Your task to perform on an android device: turn smart compose on in the gmail app Image 0: 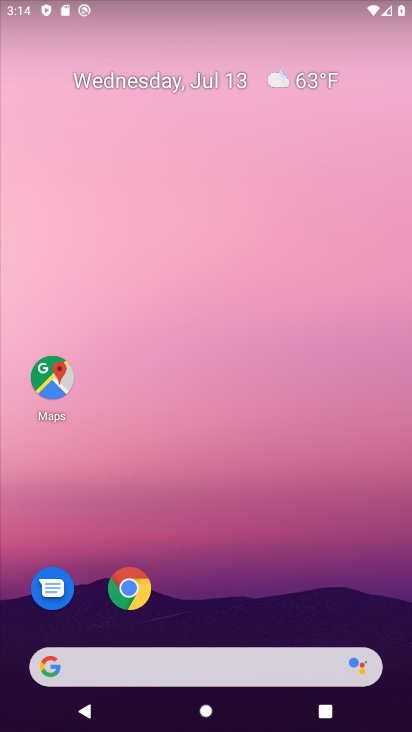
Step 0: click (292, 154)
Your task to perform on an android device: turn smart compose on in the gmail app Image 1: 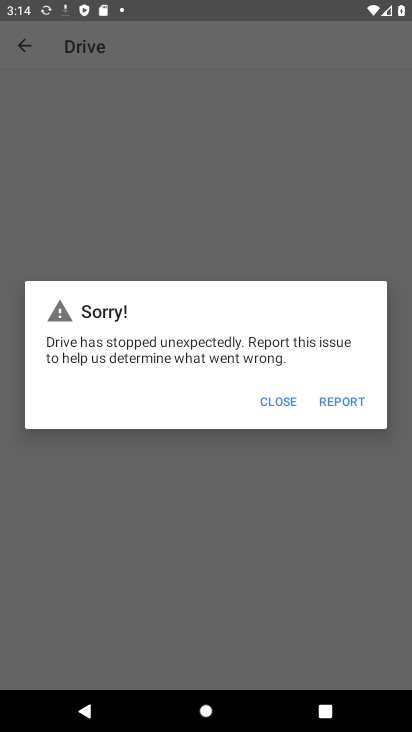
Step 1: click (280, 401)
Your task to perform on an android device: turn smart compose on in the gmail app Image 2: 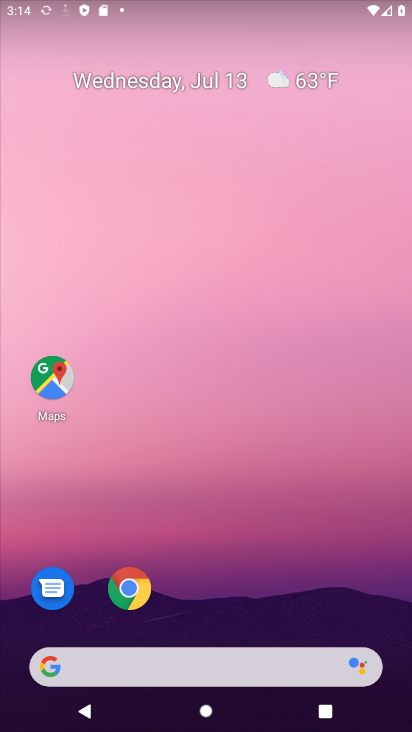
Step 2: drag from (271, 538) to (245, 100)
Your task to perform on an android device: turn smart compose on in the gmail app Image 3: 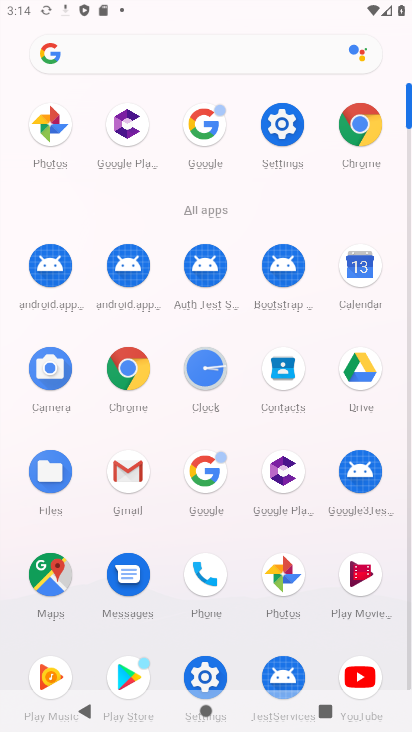
Step 3: click (118, 481)
Your task to perform on an android device: turn smart compose on in the gmail app Image 4: 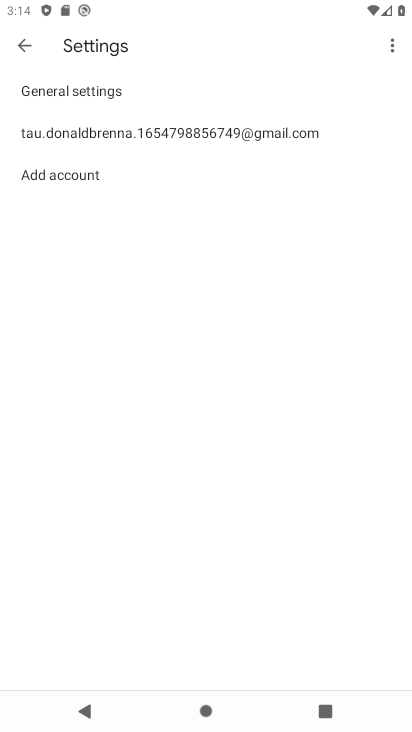
Step 4: click (21, 47)
Your task to perform on an android device: turn smart compose on in the gmail app Image 5: 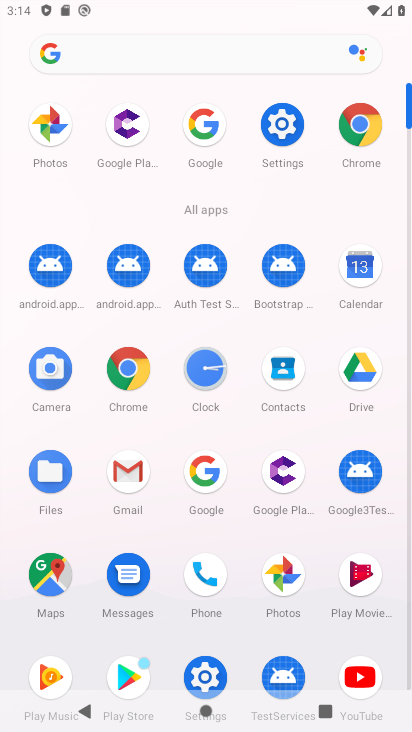
Step 5: click (120, 487)
Your task to perform on an android device: turn smart compose on in the gmail app Image 6: 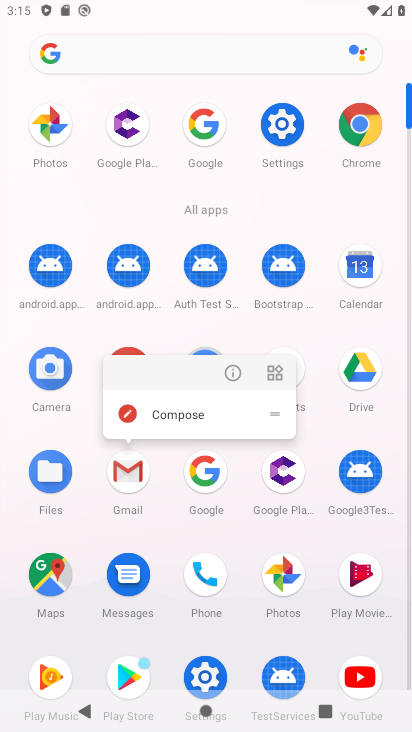
Step 6: click (124, 476)
Your task to perform on an android device: turn smart compose on in the gmail app Image 7: 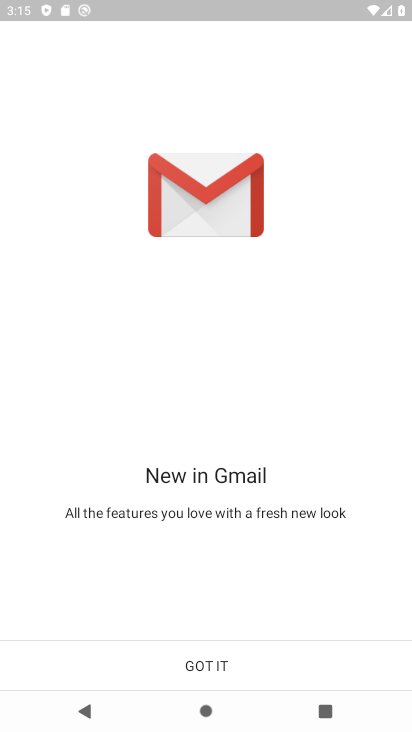
Step 7: click (187, 663)
Your task to perform on an android device: turn smart compose on in the gmail app Image 8: 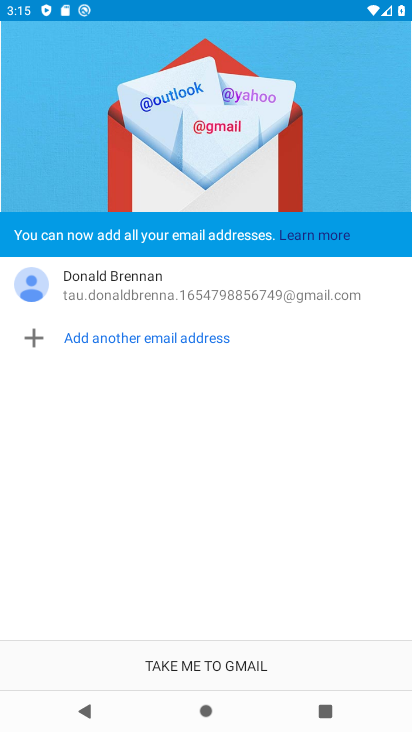
Step 8: click (180, 651)
Your task to perform on an android device: turn smart compose on in the gmail app Image 9: 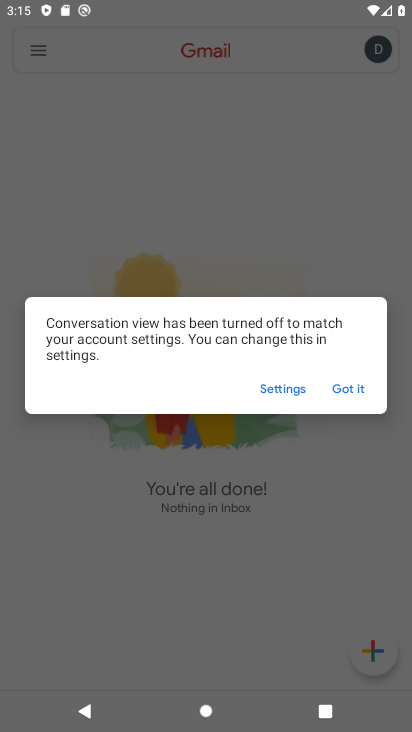
Step 9: click (357, 384)
Your task to perform on an android device: turn smart compose on in the gmail app Image 10: 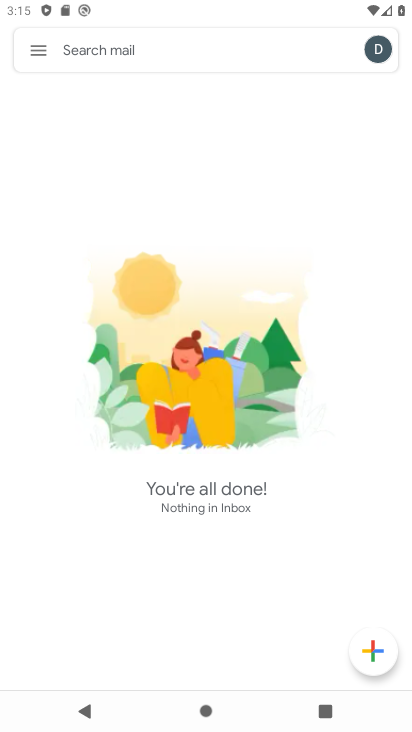
Step 10: click (30, 52)
Your task to perform on an android device: turn smart compose on in the gmail app Image 11: 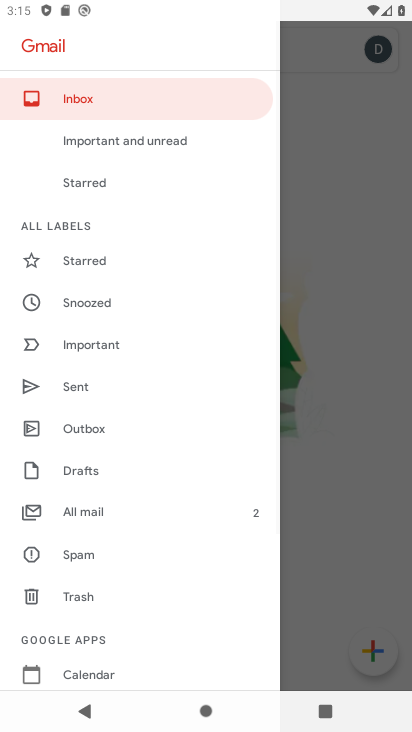
Step 11: drag from (56, 622) to (100, 159)
Your task to perform on an android device: turn smart compose on in the gmail app Image 12: 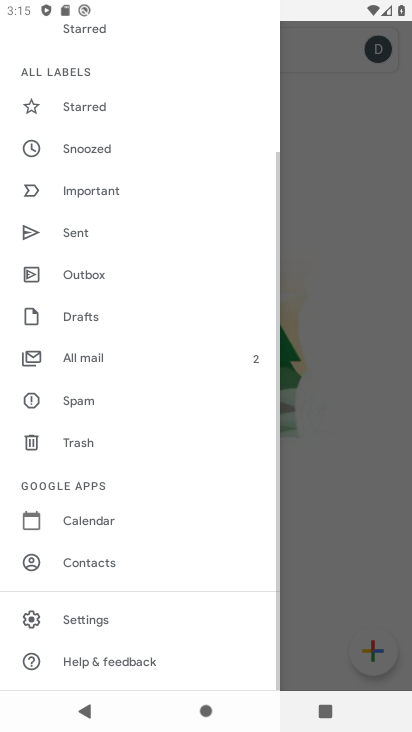
Step 12: click (90, 619)
Your task to perform on an android device: turn smart compose on in the gmail app Image 13: 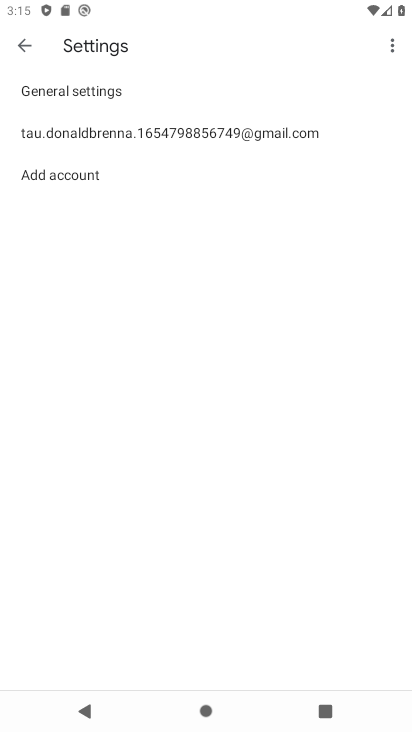
Step 13: click (107, 137)
Your task to perform on an android device: turn smart compose on in the gmail app Image 14: 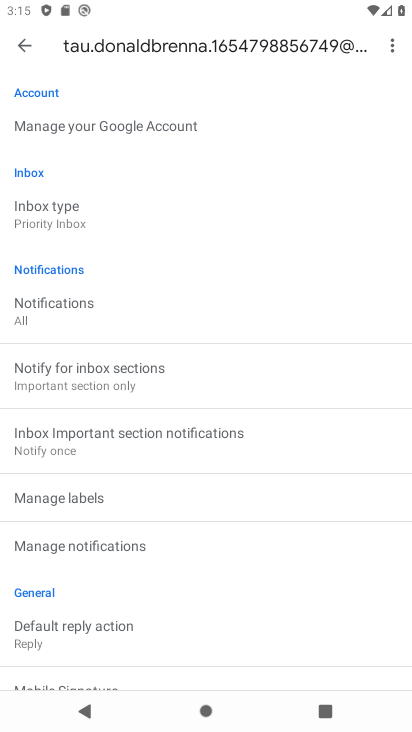
Step 14: task complete